Your task to perform on an android device: Search for a new blush on Sephora Image 0: 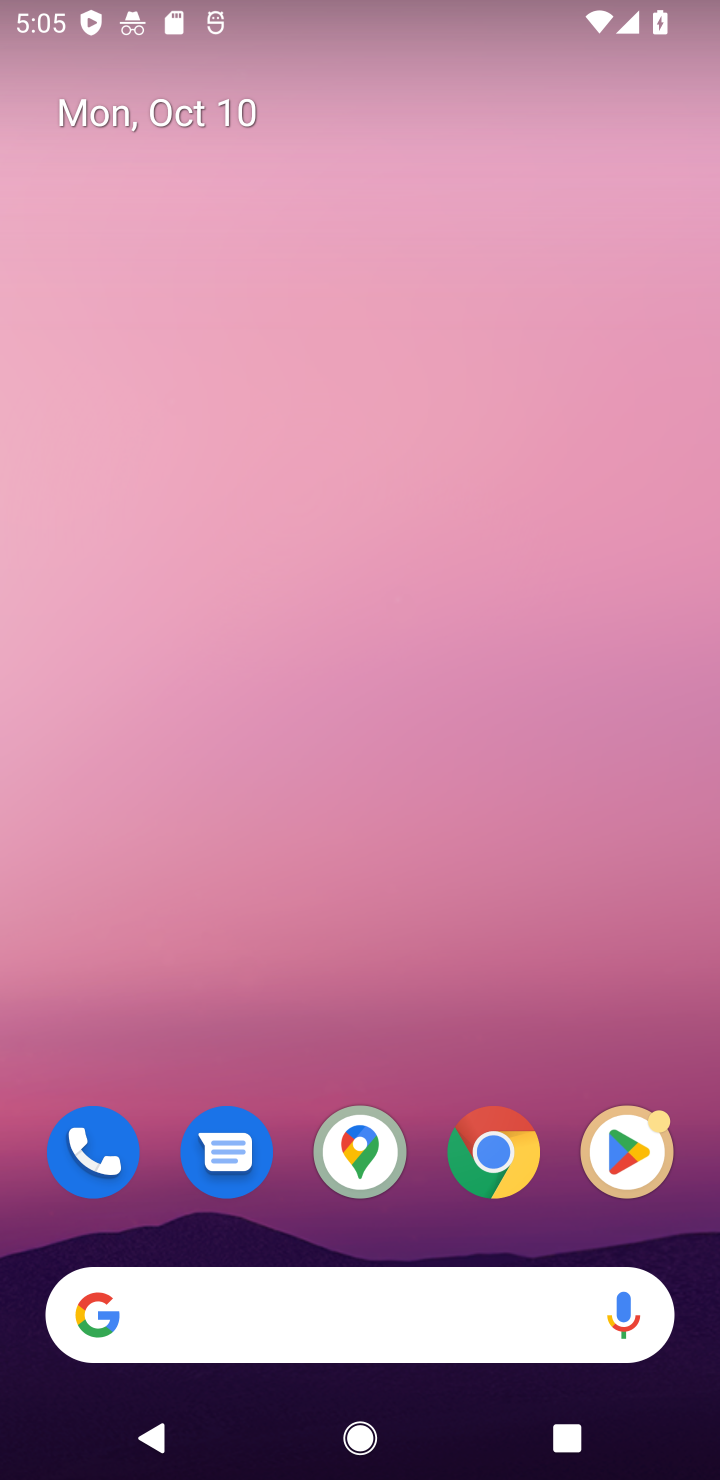
Step 0: click (489, 1160)
Your task to perform on an android device: Search for a new blush on Sephora Image 1: 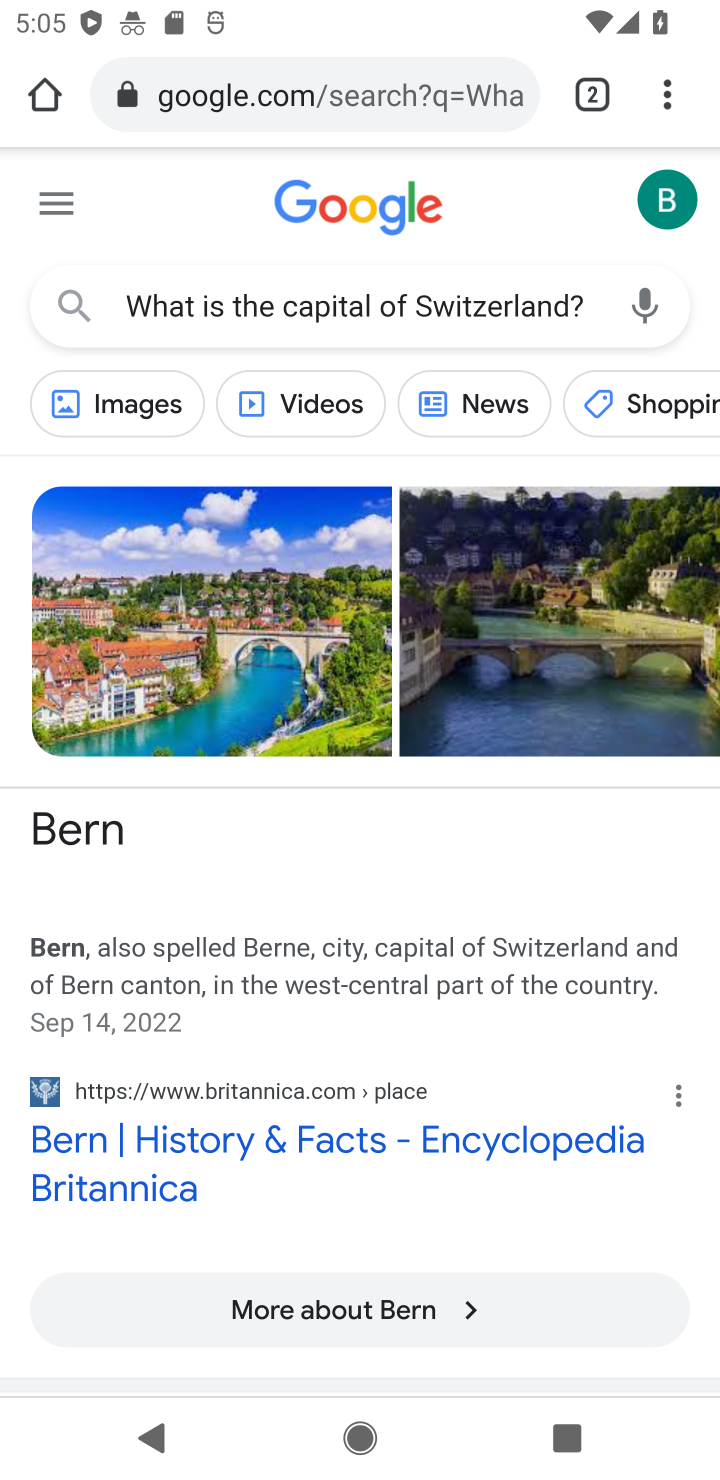
Step 1: click (422, 101)
Your task to perform on an android device: Search for a new blush on Sephora Image 2: 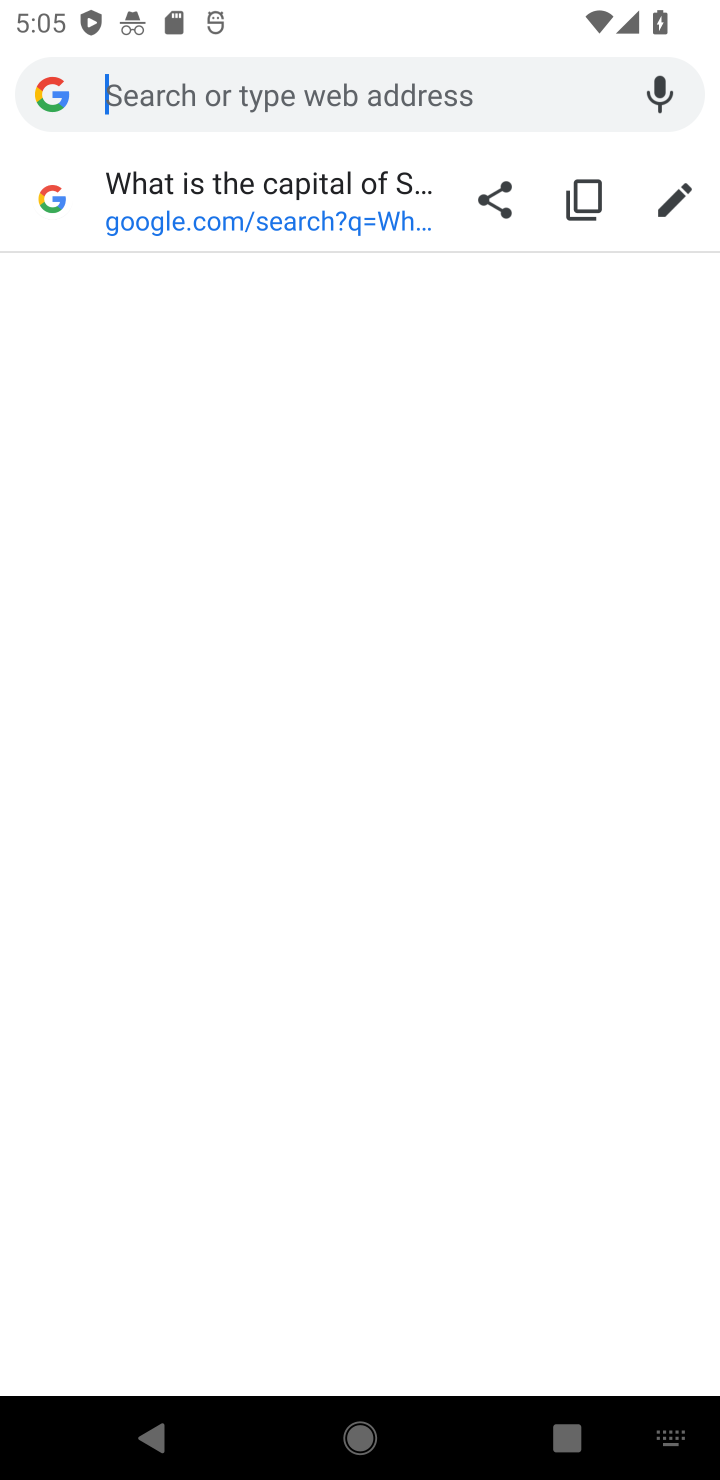
Step 2: type "Sephora"
Your task to perform on an android device: Search for a new blush on Sephora Image 3: 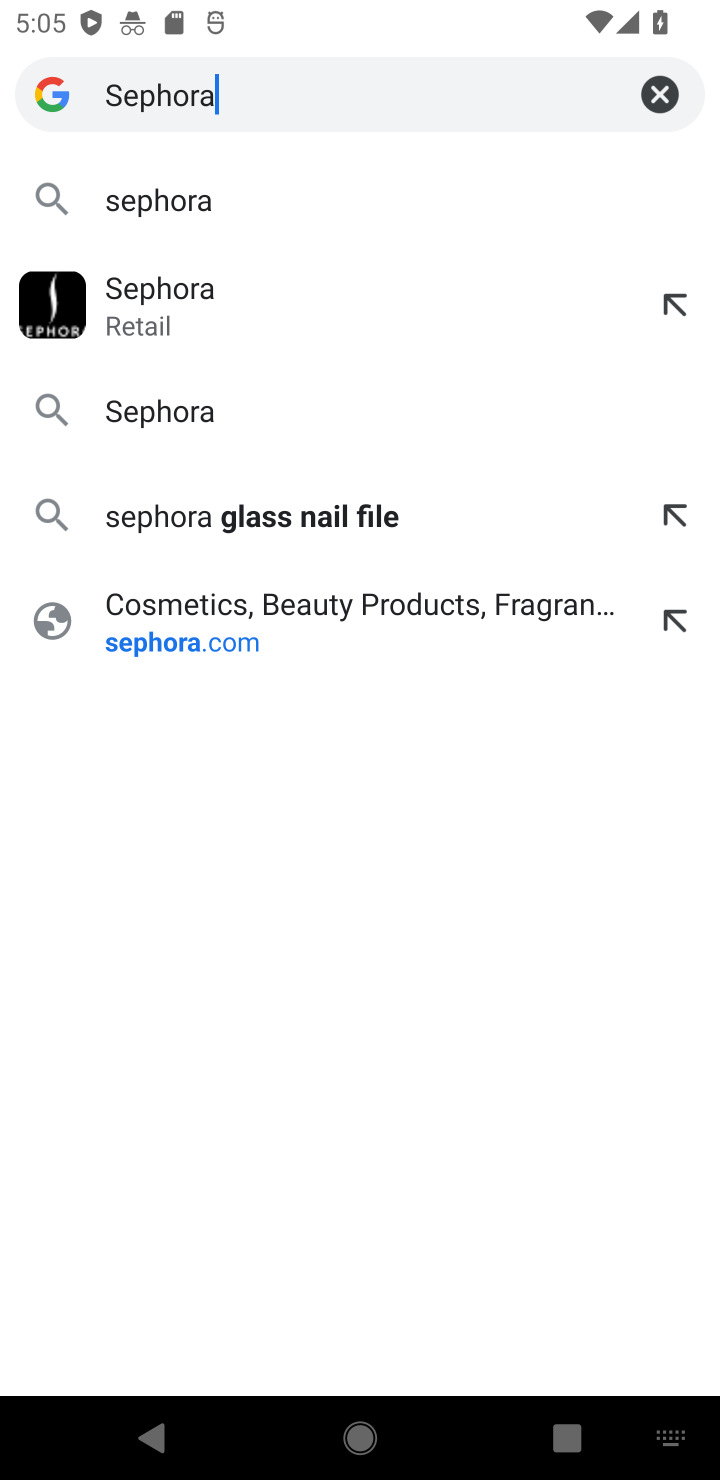
Step 3: click (171, 276)
Your task to perform on an android device: Search for a new blush on Sephora Image 4: 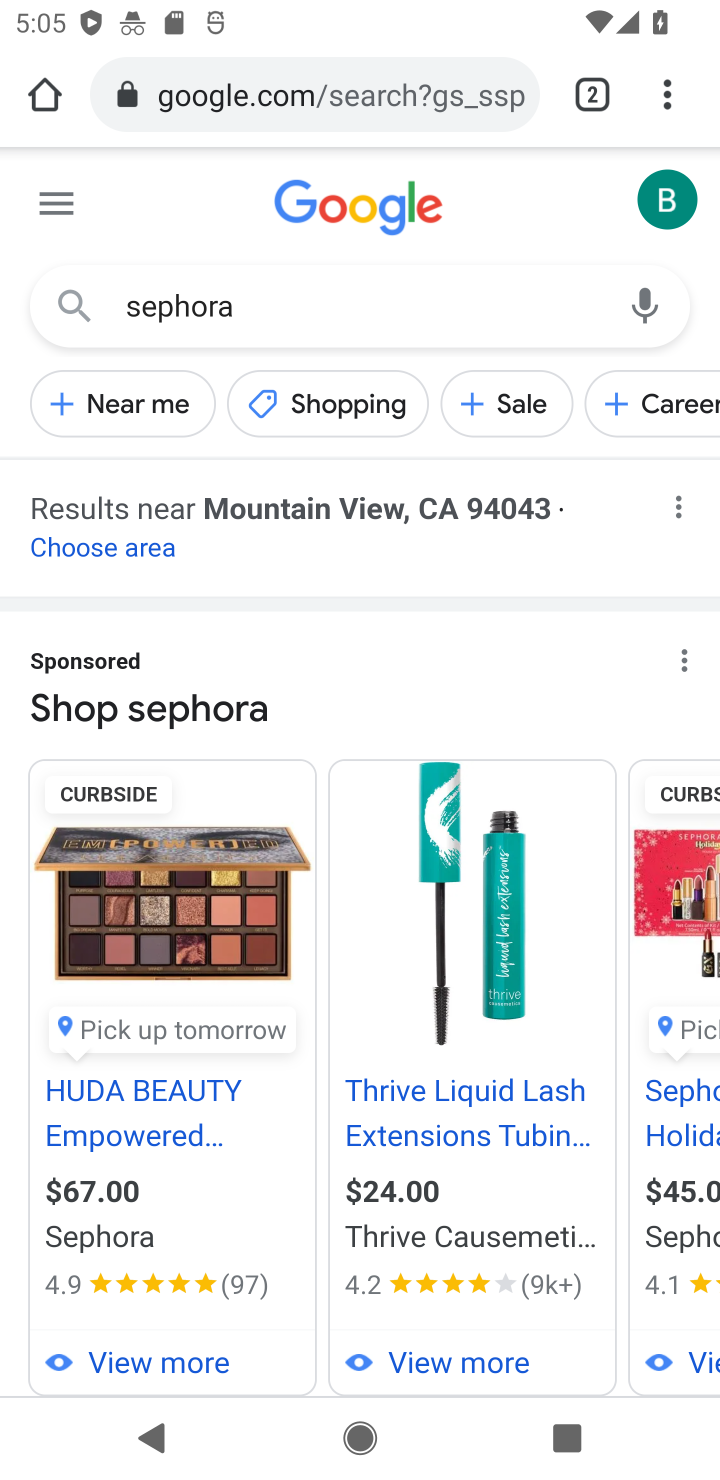
Step 4: drag from (143, 1294) to (424, 616)
Your task to perform on an android device: Search for a new blush on Sephora Image 5: 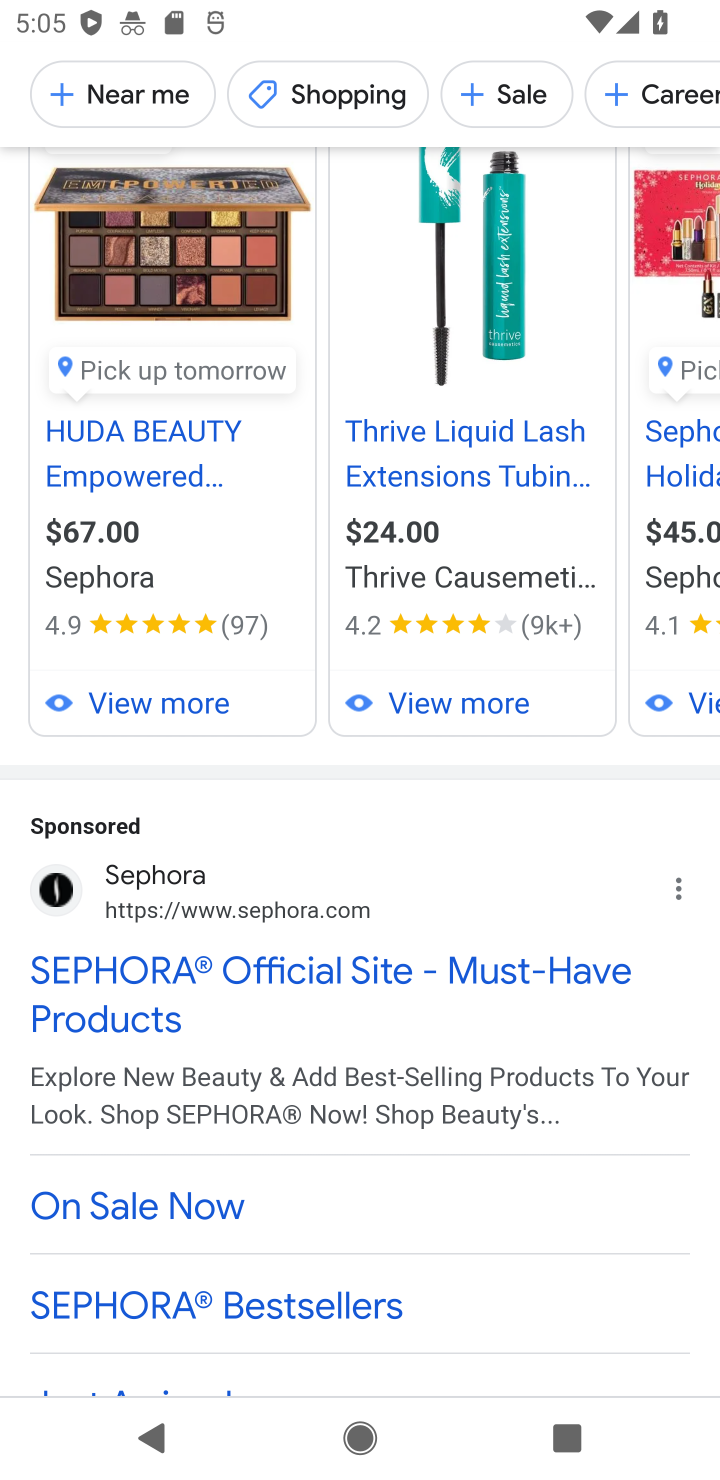
Step 5: drag from (247, 1069) to (421, 676)
Your task to perform on an android device: Search for a new blush on Sephora Image 6: 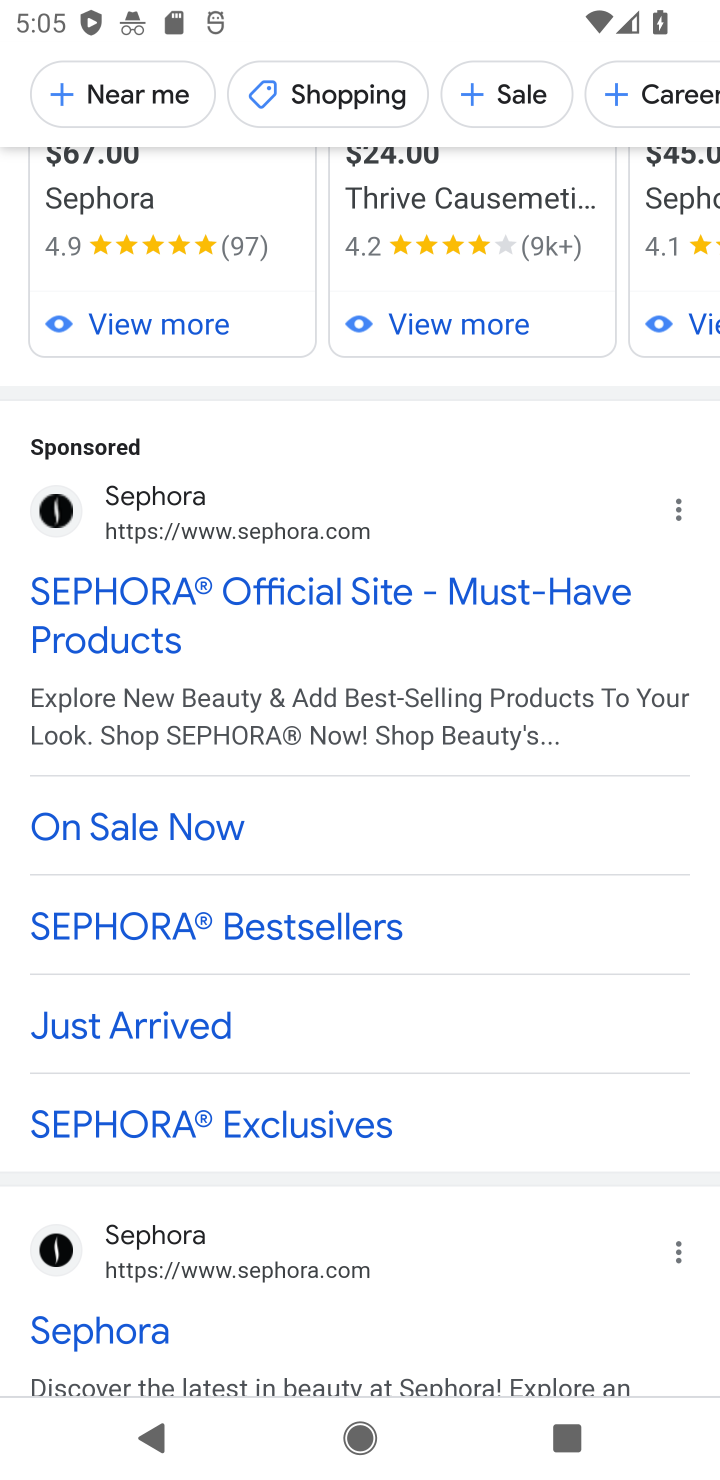
Step 6: drag from (274, 1243) to (430, 830)
Your task to perform on an android device: Search for a new blush on Sephora Image 7: 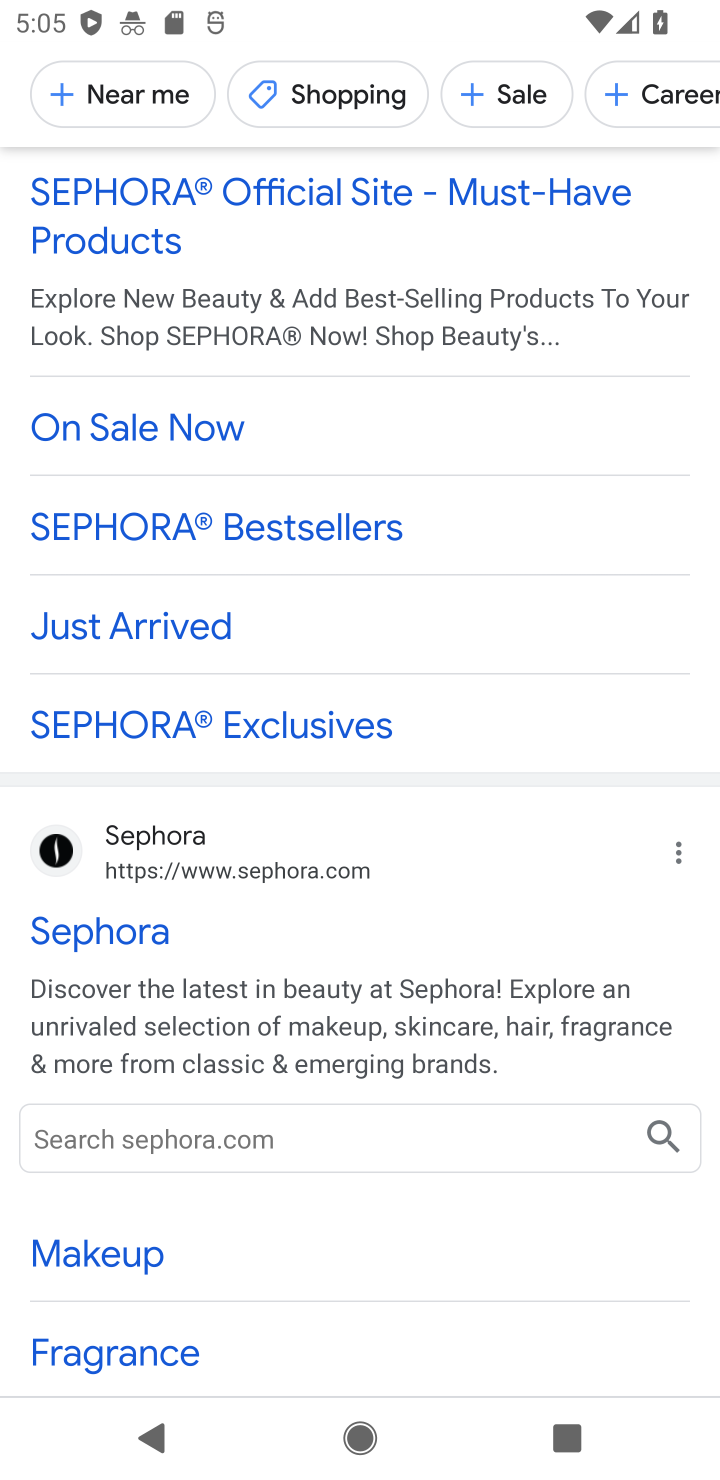
Step 7: click (139, 902)
Your task to perform on an android device: Search for a new blush on Sephora Image 8: 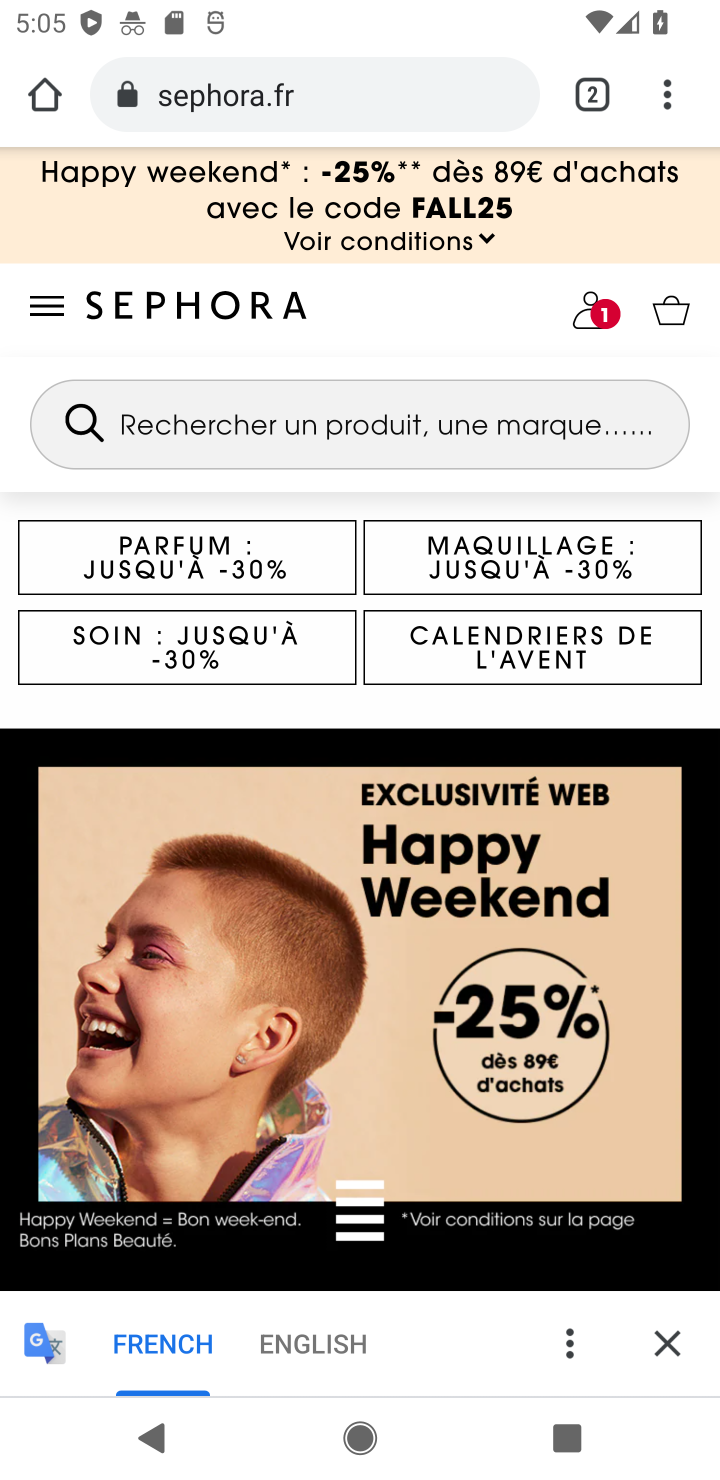
Step 8: click (354, 423)
Your task to perform on an android device: Search for a new blush on Sephora Image 9: 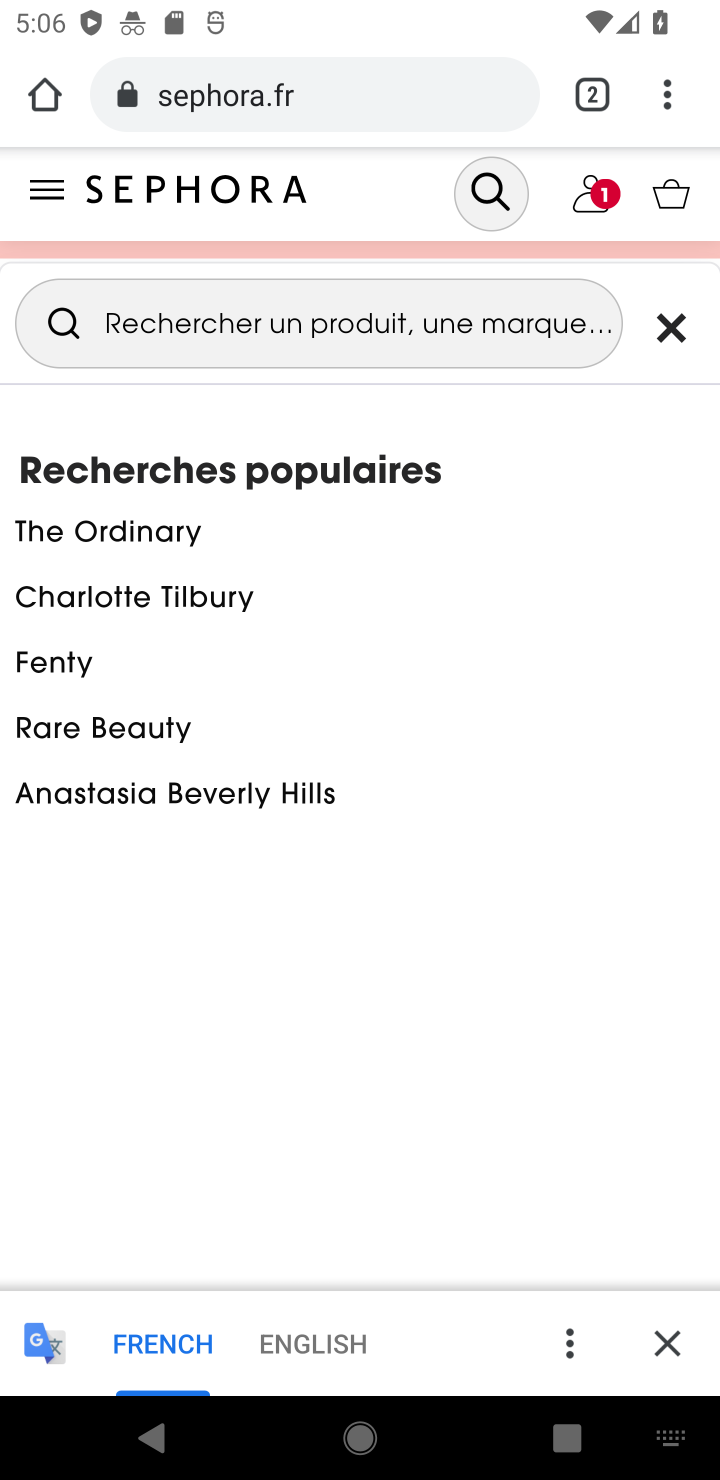
Step 9: type "new blush"
Your task to perform on an android device: Search for a new blush on Sephora Image 10: 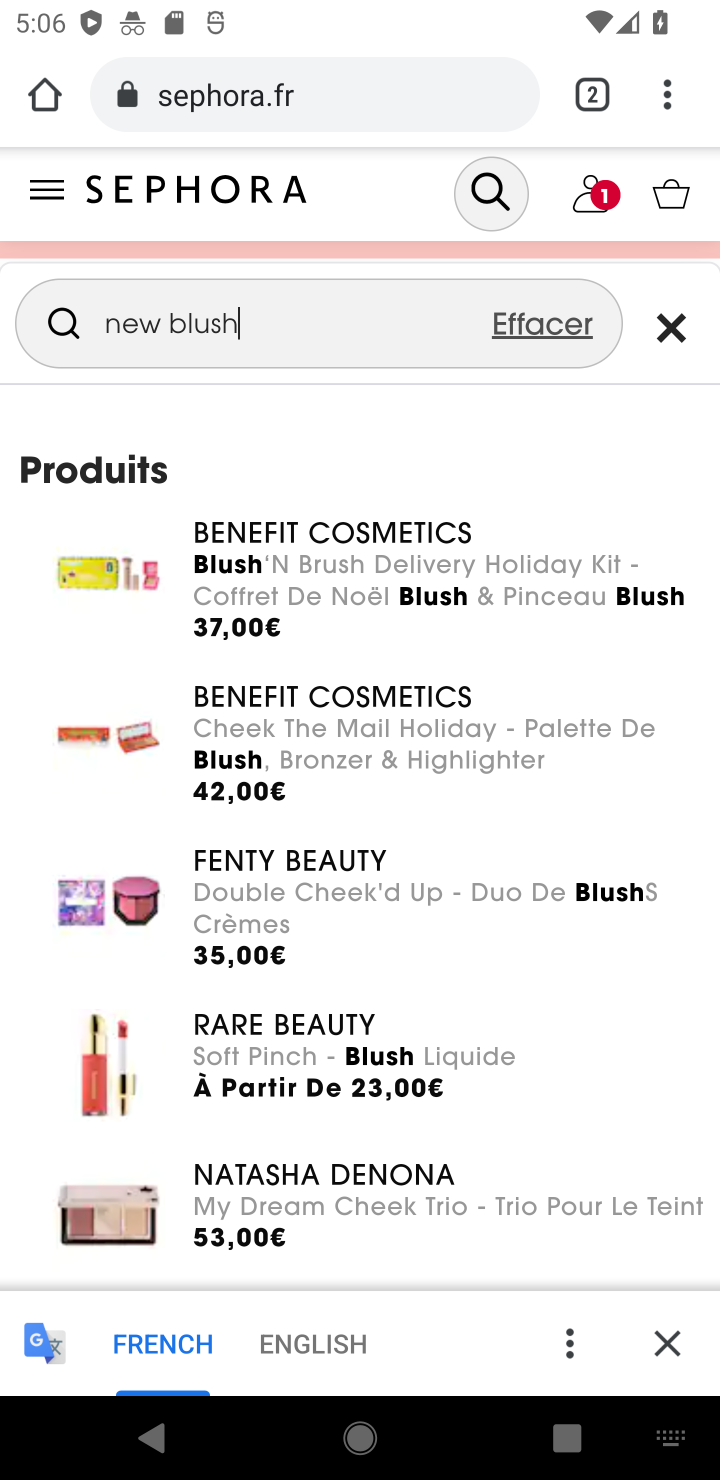
Step 10: task complete